Your task to perform on an android device: open the mobile data screen to see how much data has been used Image 0: 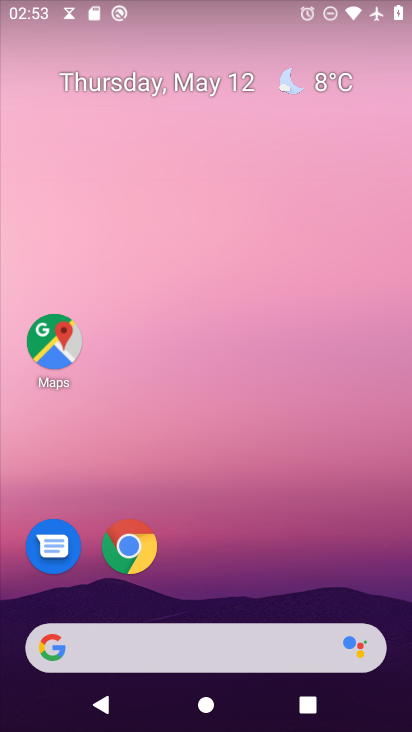
Step 0: drag from (121, 656) to (283, 127)
Your task to perform on an android device: open the mobile data screen to see how much data has been used Image 1: 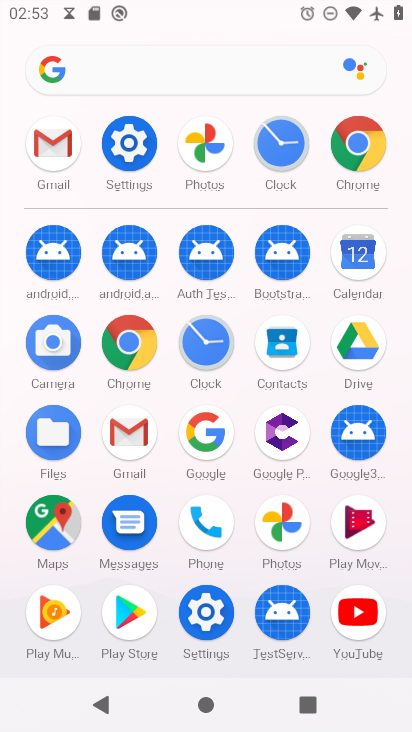
Step 1: click (132, 149)
Your task to perform on an android device: open the mobile data screen to see how much data has been used Image 2: 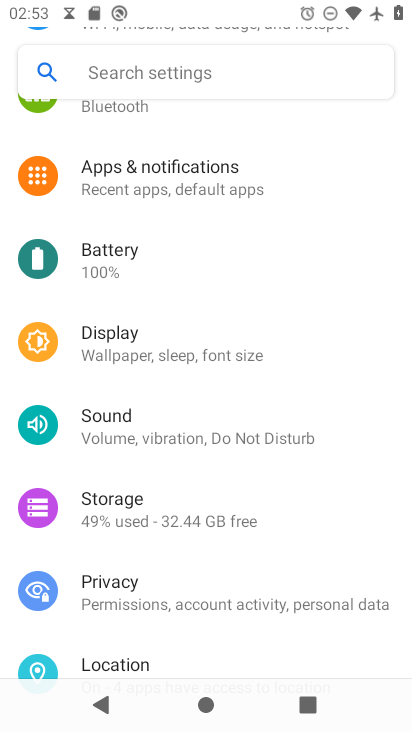
Step 2: drag from (262, 128) to (218, 404)
Your task to perform on an android device: open the mobile data screen to see how much data has been used Image 3: 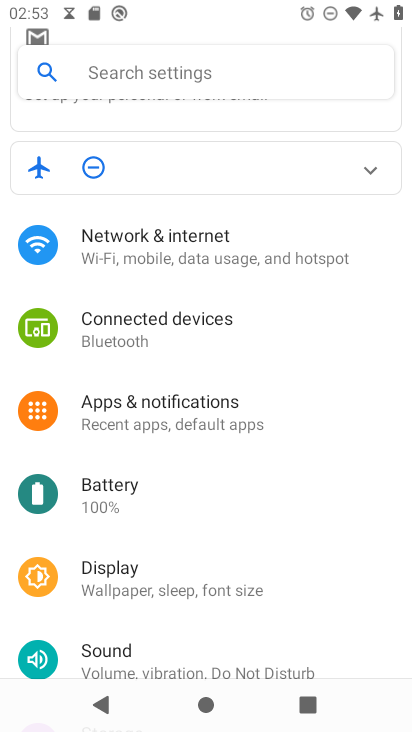
Step 3: click (193, 244)
Your task to perform on an android device: open the mobile data screen to see how much data has been used Image 4: 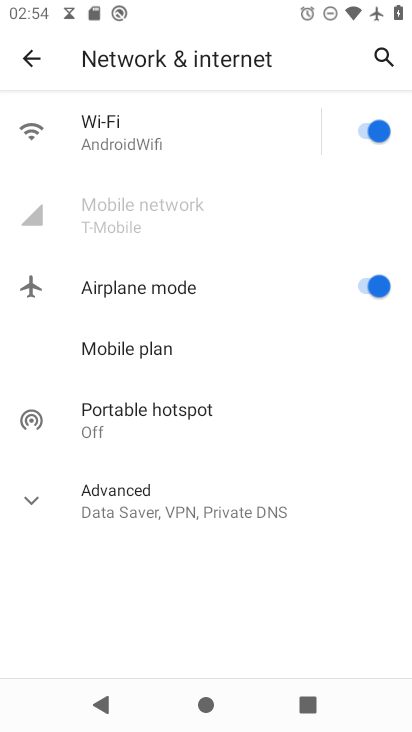
Step 4: task complete